Your task to perform on an android device: Is it going to rain today? Image 0: 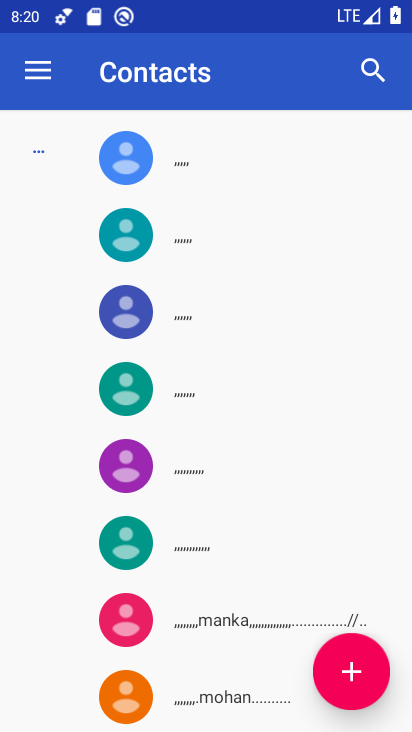
Step 0: drag from (206, 597) to (323, 205)
Your task to perform on an android device: Is it going to rain today? Image 1: 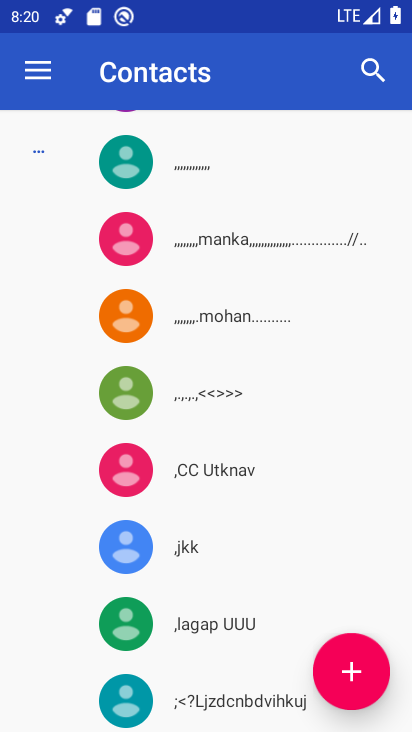
Step 1: press home button
Your task to perform on an android device: Is it going to rain today? Image 2: 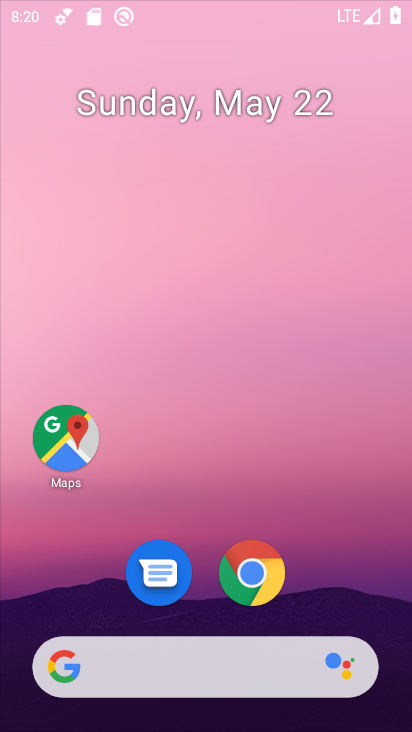
Step 2: drag from (156, 614) to (278, 4)
Your task to perform on an android device: Is it going to rain today? Image 3: 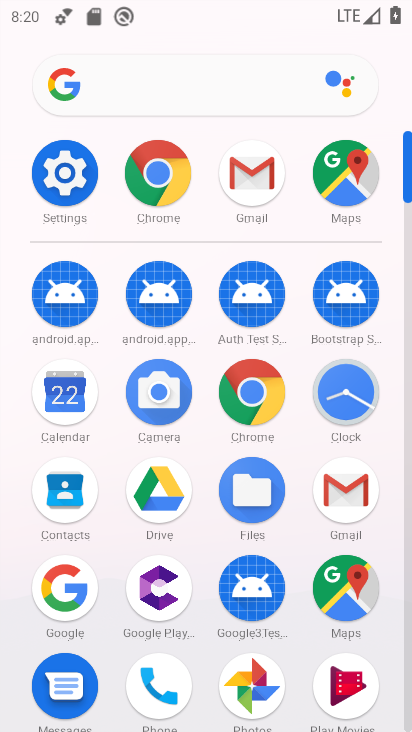
Step 3: click (193, 90)
Your task to perform on an android device: Is it going to rain today? Image 4: 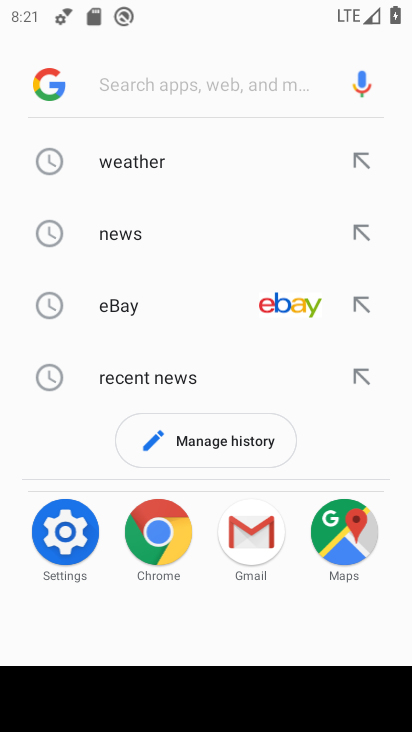
Step 4: type "rain today"
Your task to perform on an android device: Is it going to rain today? Image 5: 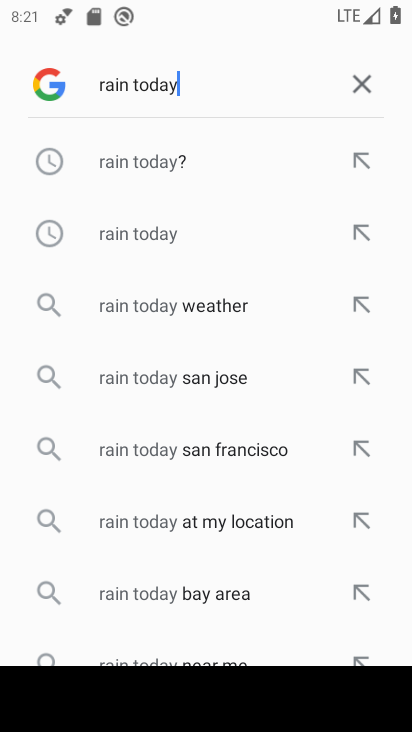
Step 5: click (144, 164)
Your task to perform on an android device: Is it going to rain today? Image 6: 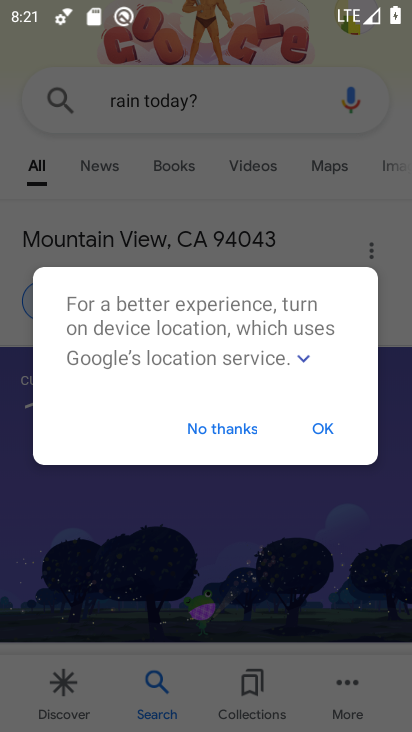
Step 6: task complete